Your task to perform on an android device: Show me popular videos on Youtube Image 0: 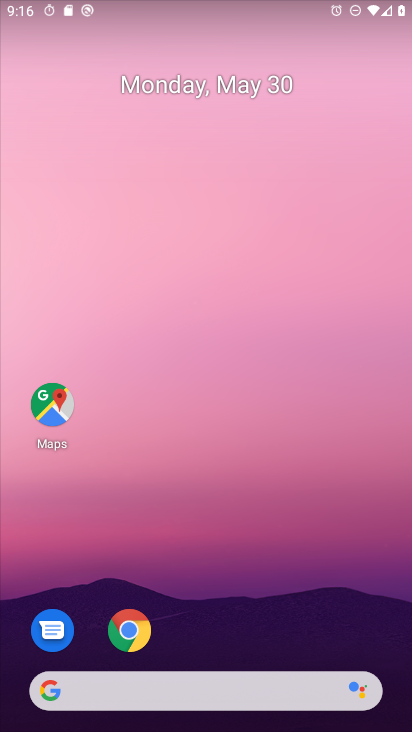
Step 0: drag from (332, 618) to (279, 70)
Your task to perform on an android device: Show me popular videos on Youtube Image 1: 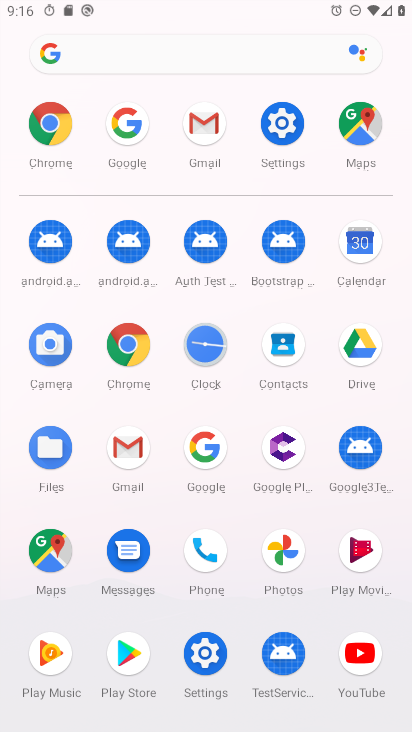
Step 1: click (371, 650)
Your task to perform on an android device: Show me popular videos on Youtube Image 2: 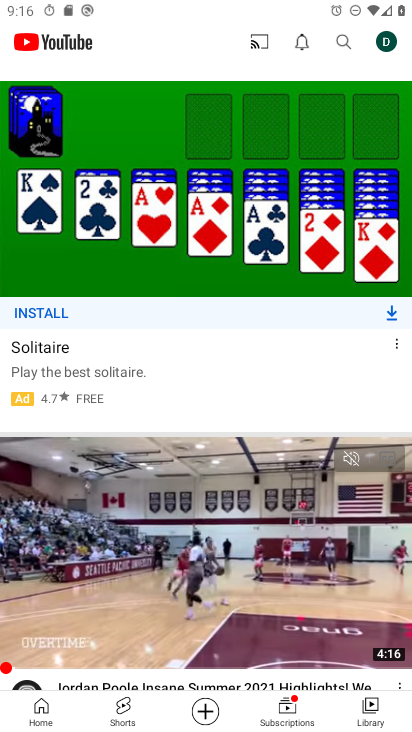
Step 2: click (366, 691)
Your task to perform on an android device: Show me popular videos on Youtube Image 3: 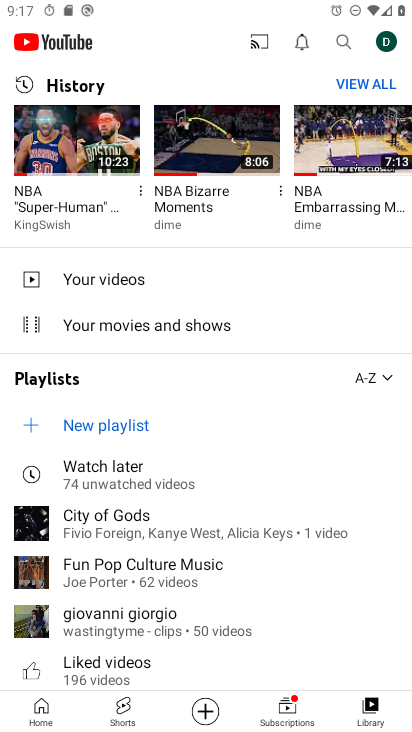
Step 3: task complete